Your task to perform on an android device: show emergency info Image 0: 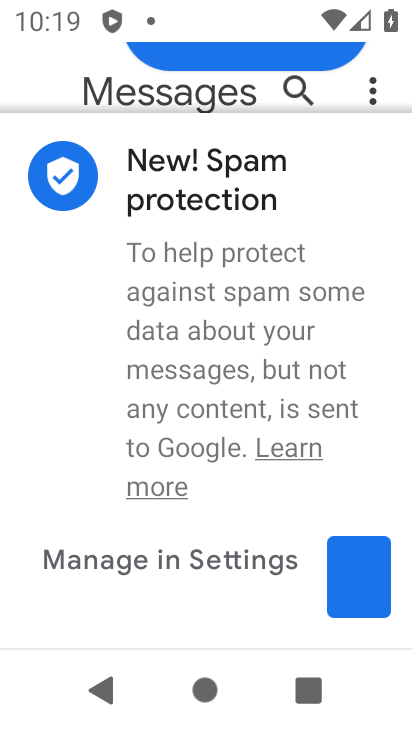
Step 0: press home button
Your task to perform on an android device: show emergency info Image 1: 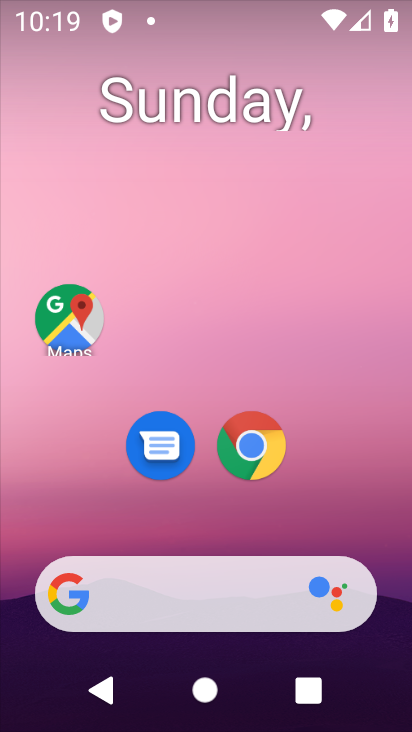
Step 1: drag from (226, 495) to (395, 27)
Your task to perform on an android device: show emergency info Image 2: 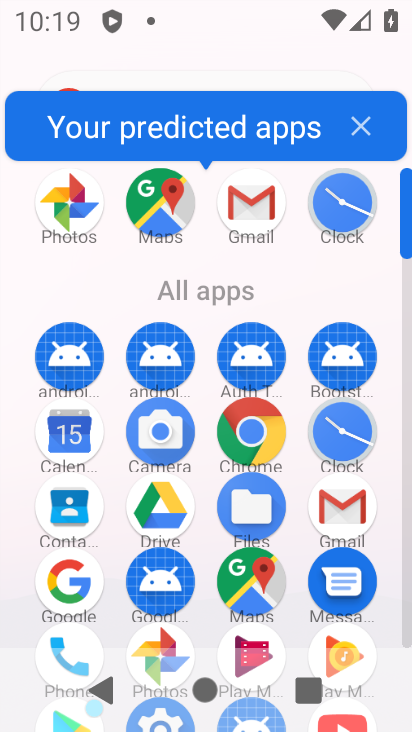
Step 2: drag from (206, 553) to (216, 87)
Your task to perform on an android device: show emergency info Image 3: 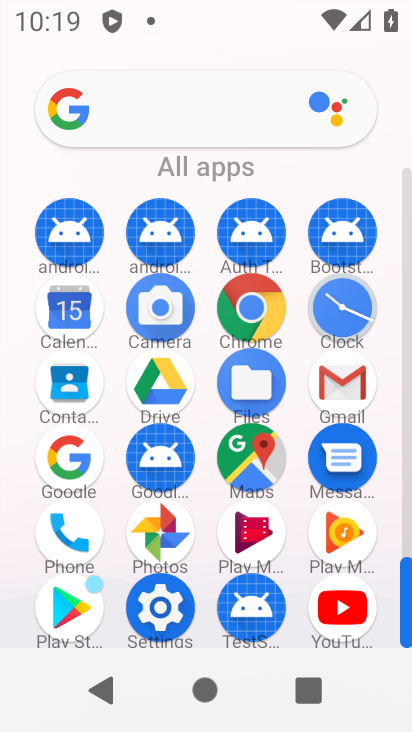
Step 3: click (159, 608)
Your task to perform on an android device: show emergency info Image 4: 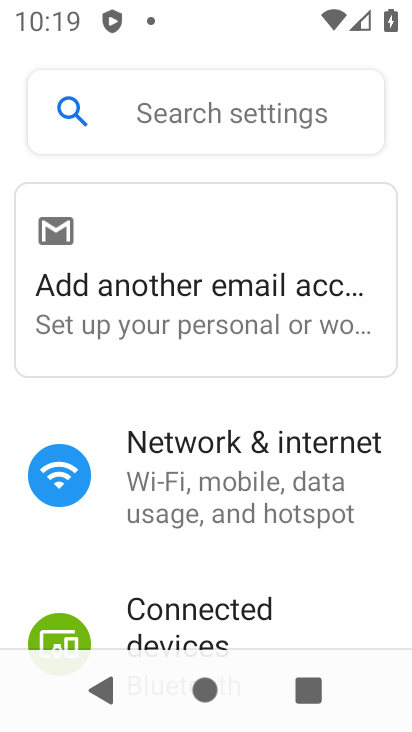
Step 4: drag from (194, 514) to (108, 41)
Your task to perform on an android device: show emergency info Image 5: 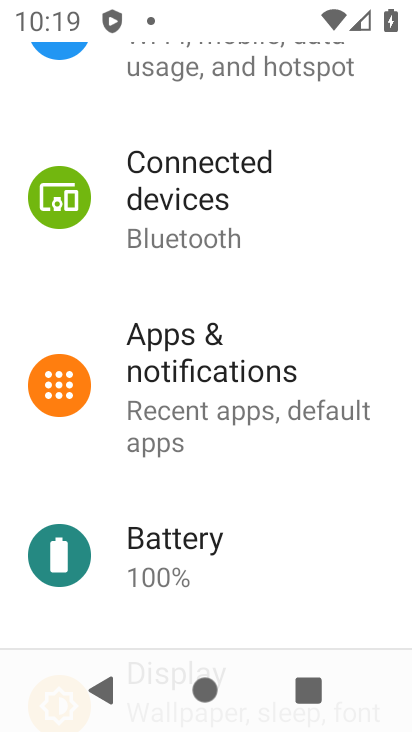
Step 5: drag from (214, 519) to (276, 9)
Your task to perform on an android device: show emergency info Image 6: 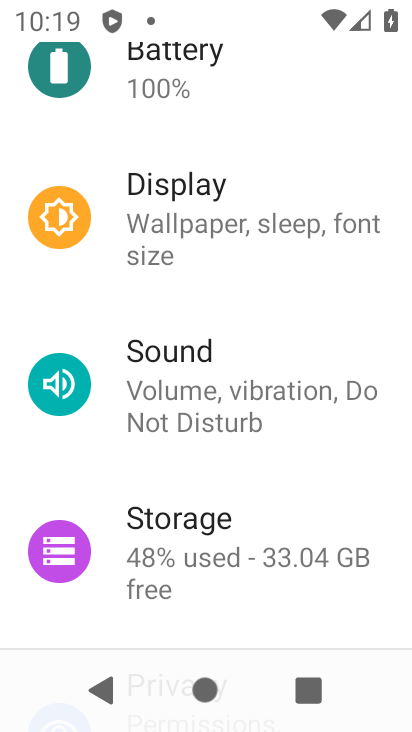
Step 6: drag from (200, 511) to (200, 4)
Your task to perform on an android device: show emergency info Image 7: 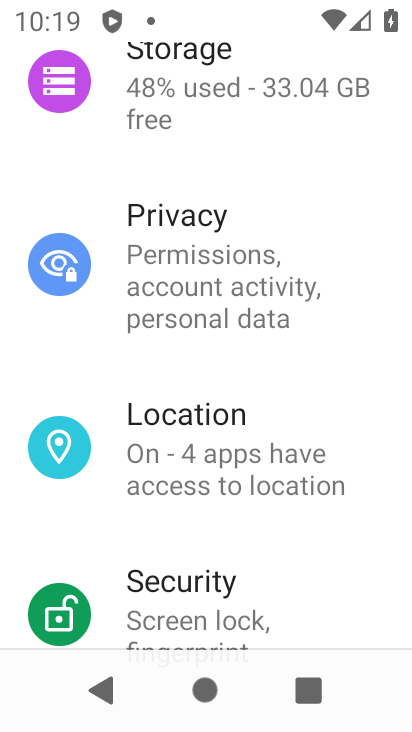
Step 7: drag from (221, 545) to (210, 34)
Your task to perform on an android device: show emergency info Image 8: 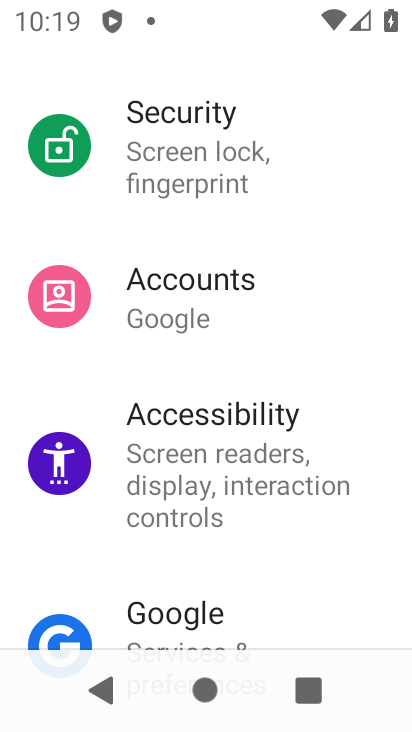
Step 8: drag from (159, 552) to (165, 91)
Your task to perform on an android device: show emergency info Image 9: 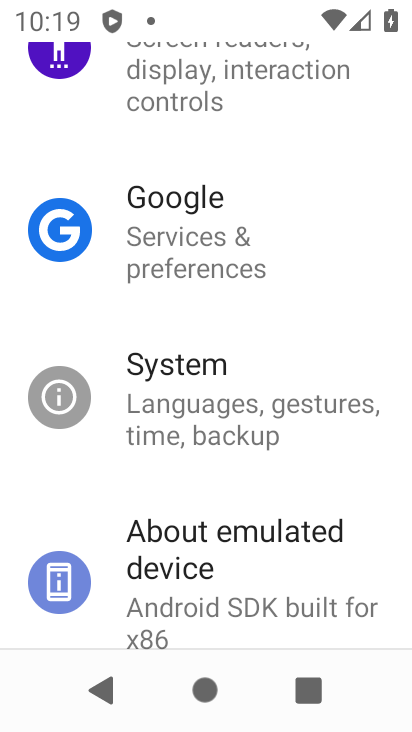
Step 9: click (173, 556)
Your task to perform on an android device: show emergency info Image 10: 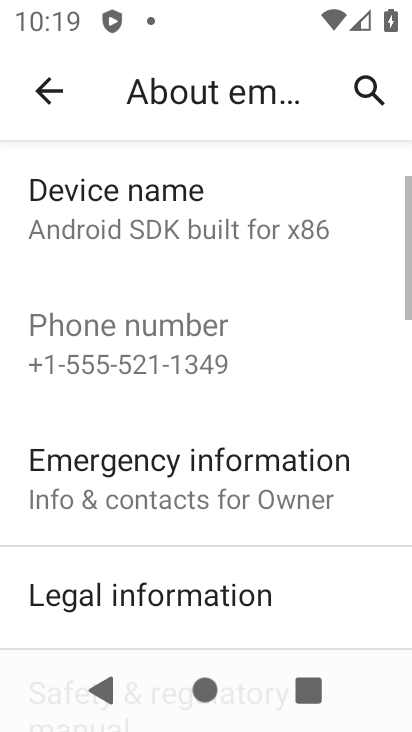
Step 10: click (151, 498)
Your task to perform on an android device: show emergency info Image 11: 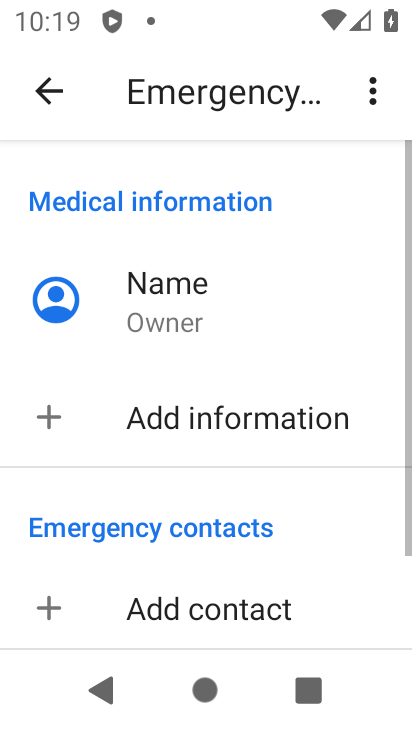
Step 11: task complete